Your task to perform on an android device: Search for vegetarian restaurants on Maps Image 0: 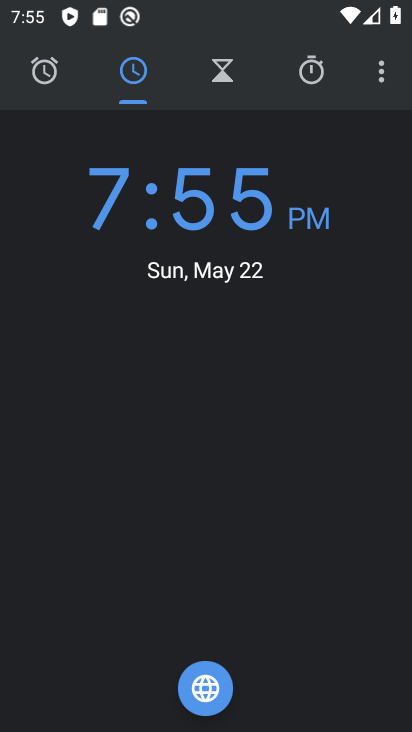
Step 0: press home button
Your task to perform on an android device: Search for vegetarian restaurants on Maps Image 1: 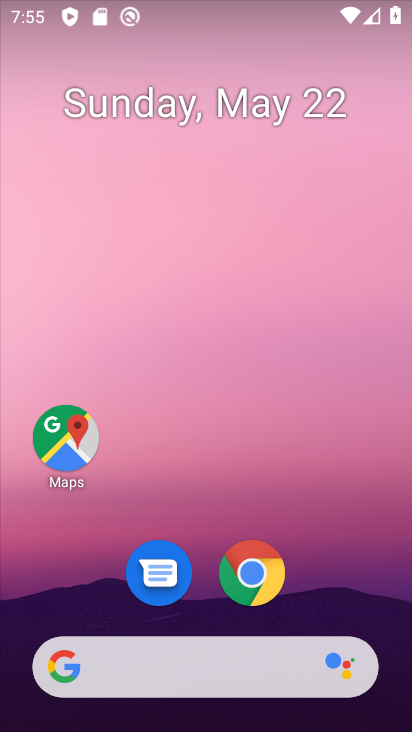
Step 1: drag from (349, 560) to (337, 226)
Your task to perform on an android device: Search for vegetarian restaurants on Maps Image 2: 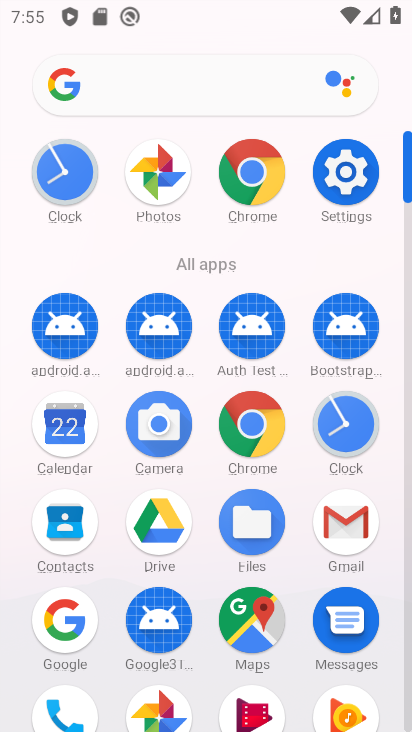
Step 2: click (240, 606)
Your task to perform on an android device: Search for vegetarian restaurants on Maps Image 3: 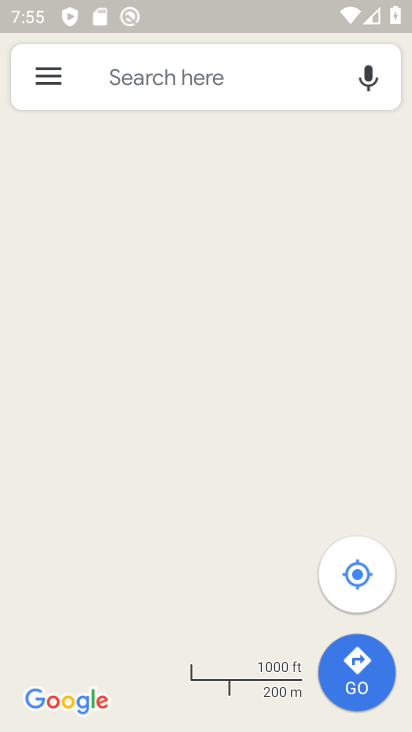
Step 3: click (159, 90)
Your task to perform on an android device: Search for vegetarian restaurants on Maps Image 4: 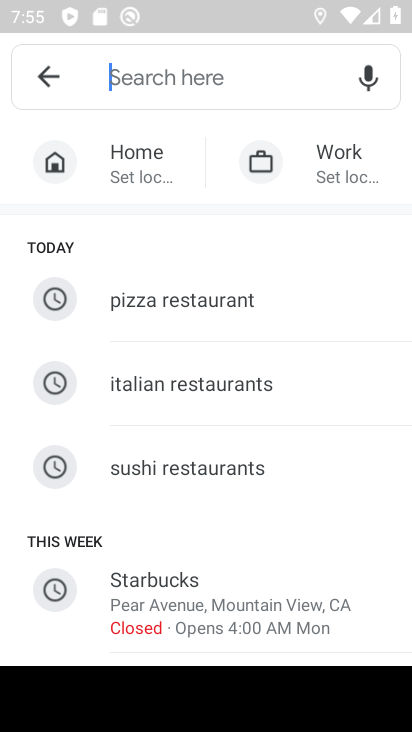
Step 4: type "vegetarian restaurants"
Your task to perform on an android device: Search for vegetarian restaurants on Maps Image 5: 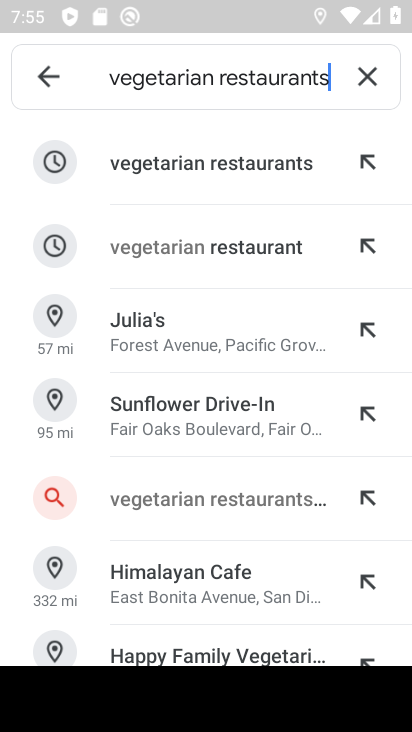
Step 5: click (270, 175)
Your task to perform on an android device: Search for vegetarian restaurants on Maps Image 6: 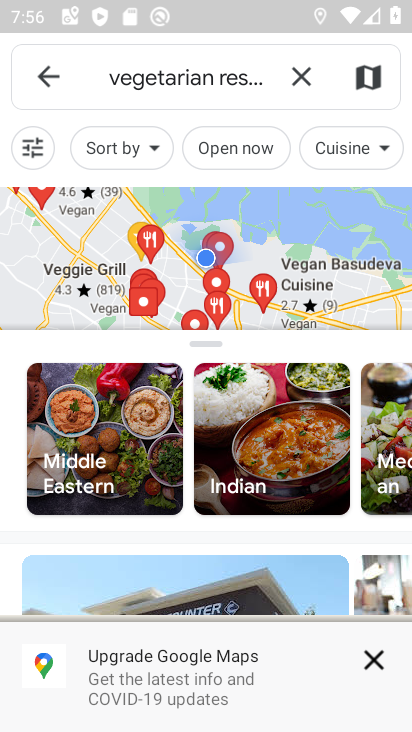
Step 6: task complete